Your task to perform on an android device: Do I have any events tomorrow? Image 0: 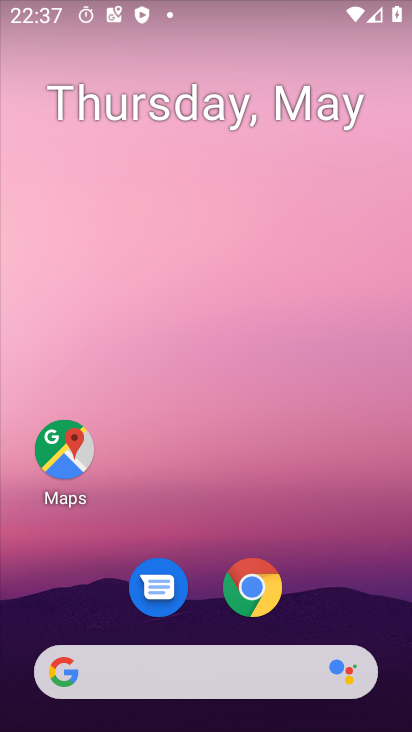
Step 0: drag from (333, 633) to (351, 7)
Your task to perform on an android device: Do I have any events tomorrow? Image 1: 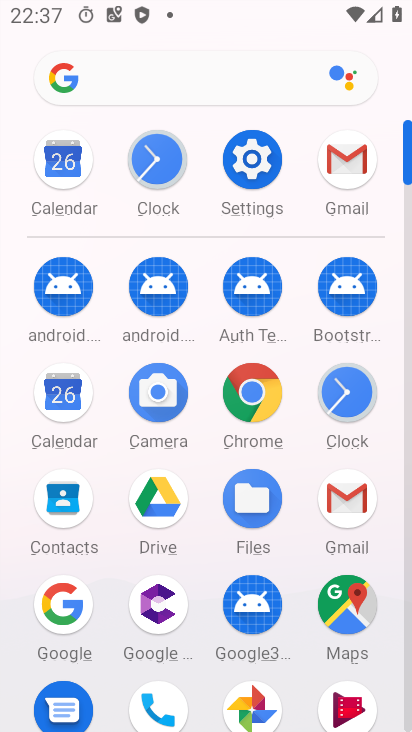
Step 1: click (61, 158)
Your task to perform on an android device: Do I have any events tomorrow? Image 2: 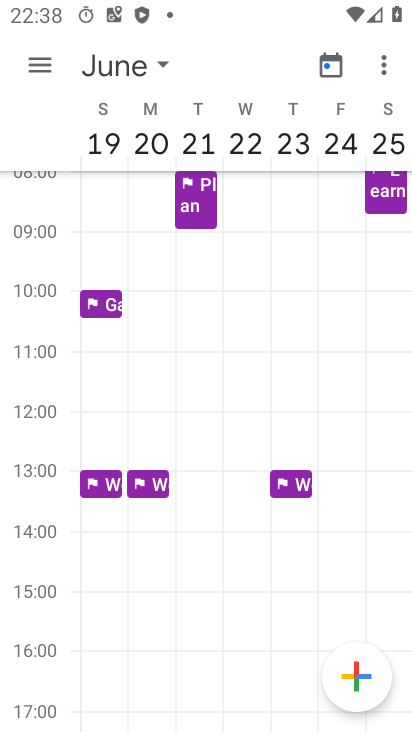
Step 2: click (326, 63)
Your task to perform on an android device: Do I have any events tomorrow? Image 3: 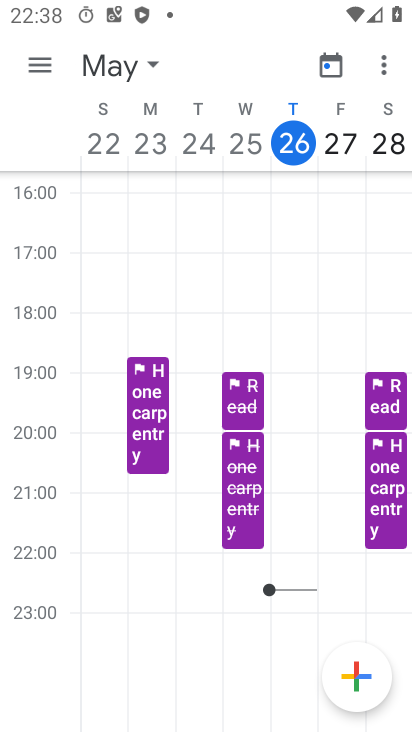
Step 3: click (24, 55)
Your task to perform on an android device: Do I have any events tomorrow? Image 4: 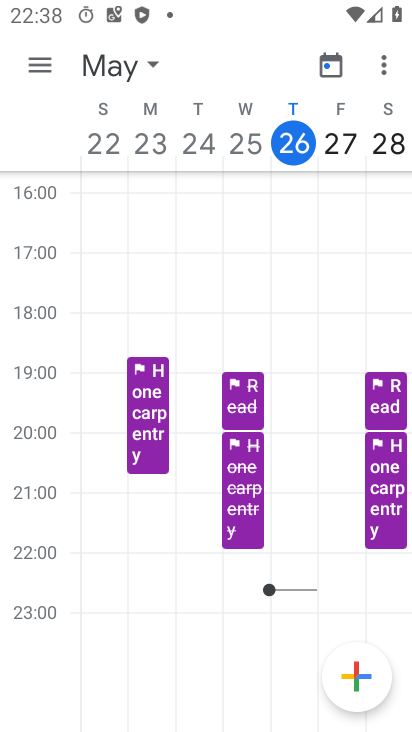
Step 4: click (35, 67)
Your task to perform on an android device: Do I have any events tomorrow? Image 5: 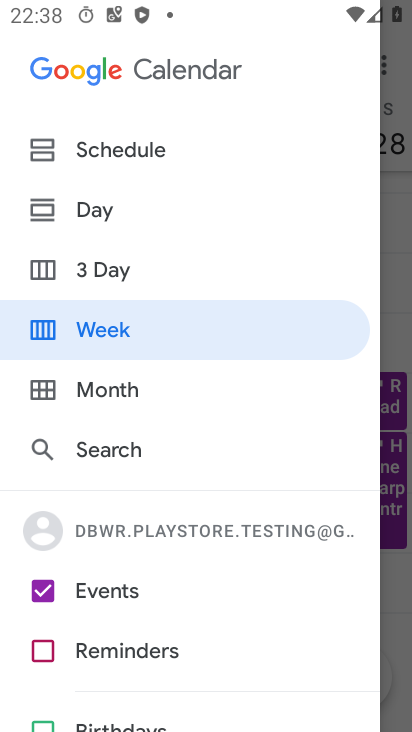
Step 5: click (94, 214)
Your task to perform on an android device: Do I have any events tomorrow? Image 6: 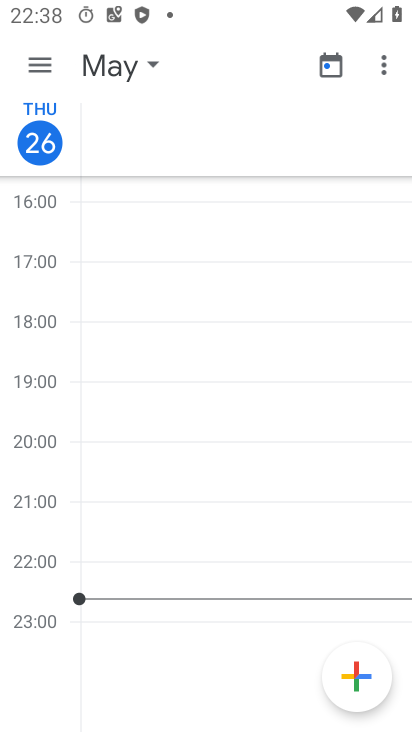
Step 6: click (147, 67)
Your task to perform on an android device: Do I have any events tomorrow? Image 7: 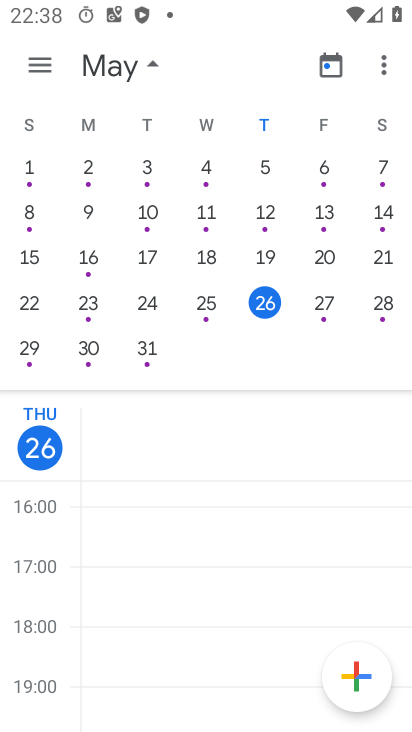
Step 7: click (327, 317)
Your task to perform on an android device: Do I have any events tomorrow? Image 8: 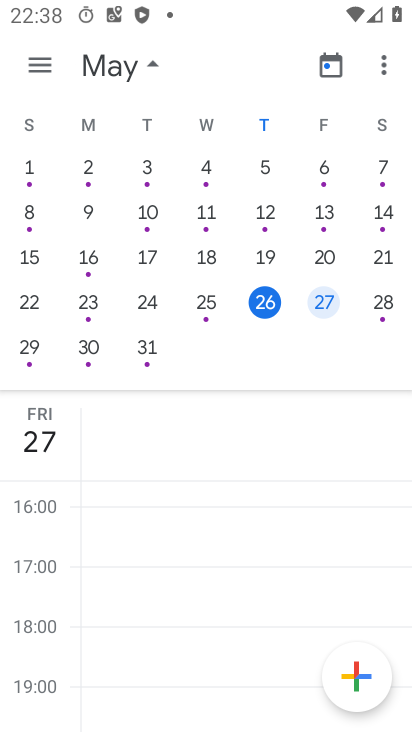
Step 8: drag from (192, 416) to (241, 31)
Your task to perform on an android device: Do I have any events tomorrow? Image 9: 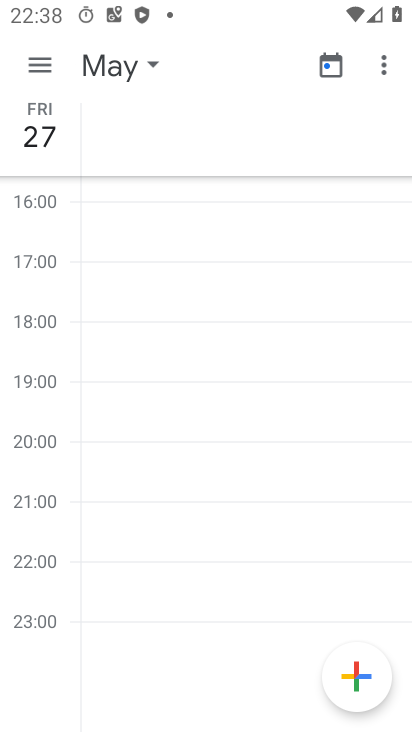
Step 9: drag from (230, 417) to (217, 125)
Your task to perform on an android device: Do I have any events tomorrow? Image 10: 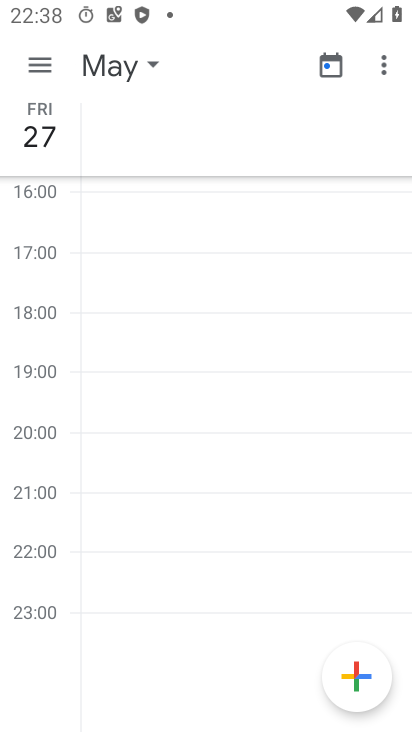
Step 10: drag from (203, 244) to (281, 642)
Your task to perform on an android device: Do I have any events tomorrow? Image 11: 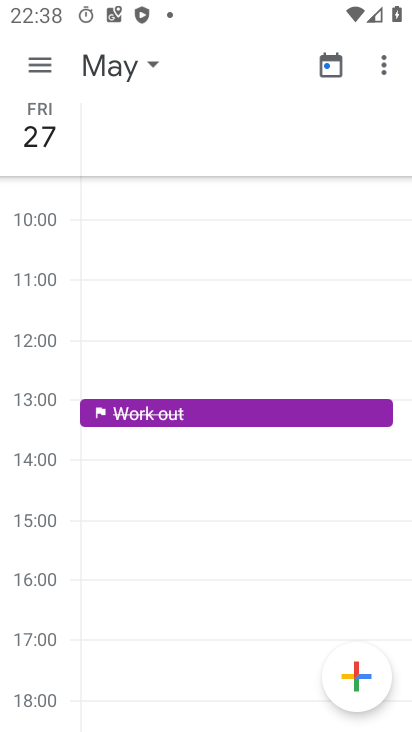
Step 11: drag from (189, 267) to (213, 730)
Your task to perform on an android device: Do I have any events tomorrow? Image 12: 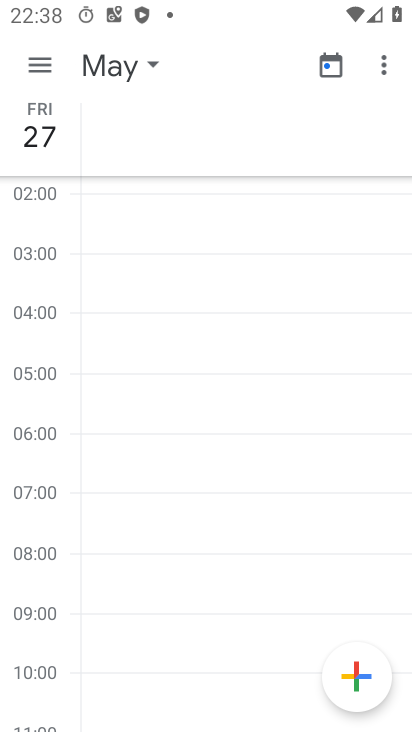
Step 12: drag from (216, 288) to (245, 716)
Your task to perform on an android device: Do I have any events tomorrow? Image 13: 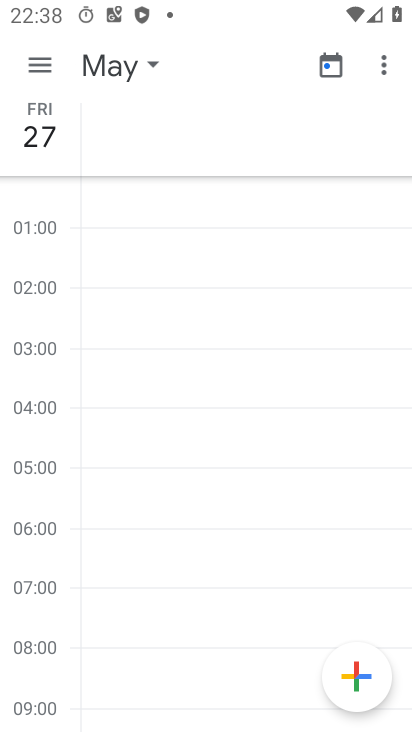
Step 13: drag from (194, 342) to (222, 34)
Your task to perform on an android device: Do I have any events tomorrow? Image 14: 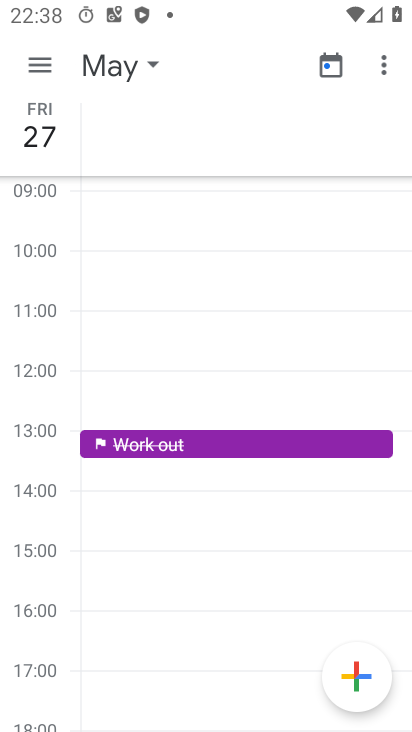
Step 14: click (186, 440)
Your task to perform on an android device: Do I have any events tomorrow? Image 15: 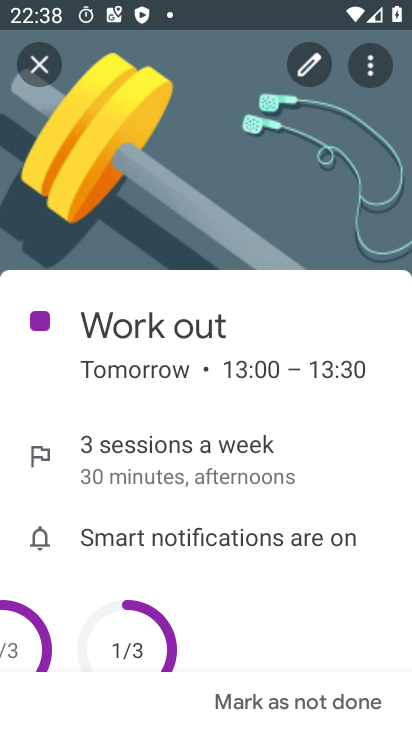
Step 15: task complete